Your task to perform on an android device: Search for hotels in Philadelphia Image 0: 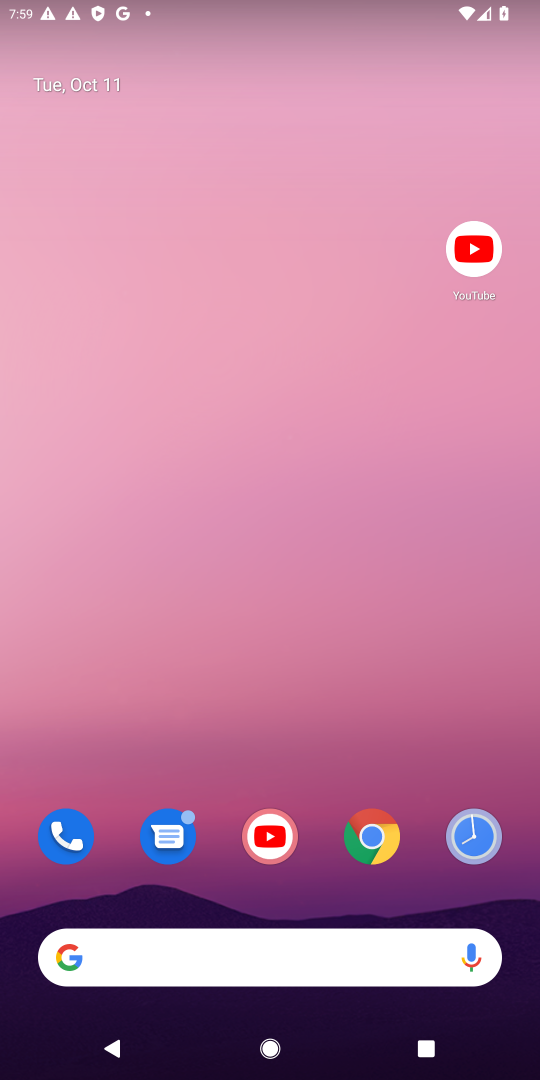
Step 0: click (369, 837)
Your task to perform on an android device: Search for hotels in Philadelphia Image 1: 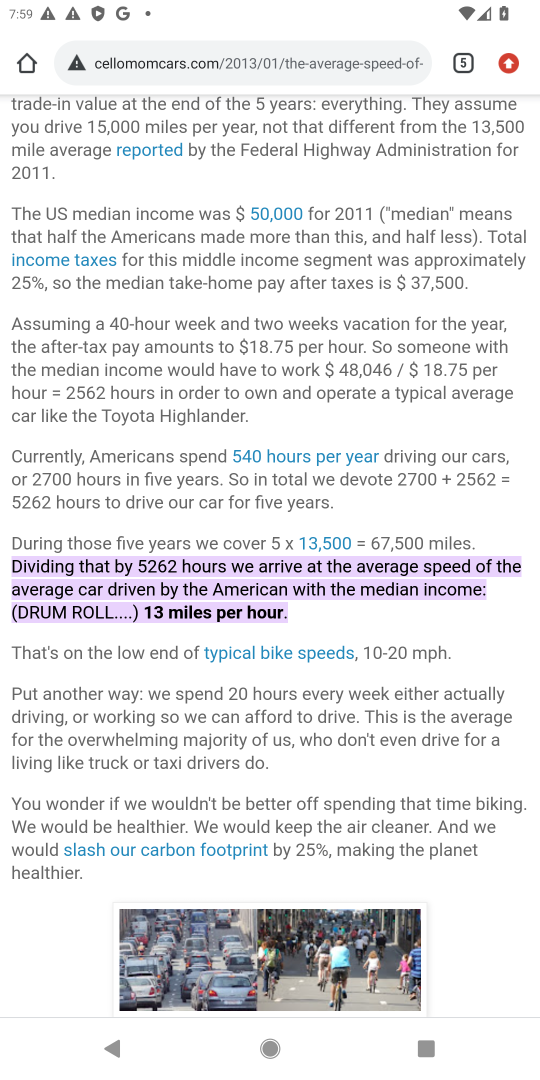
Step 1: click (270, 62)
Your task to perform on an android device: Search for hotels in Philadelphia Image 2: 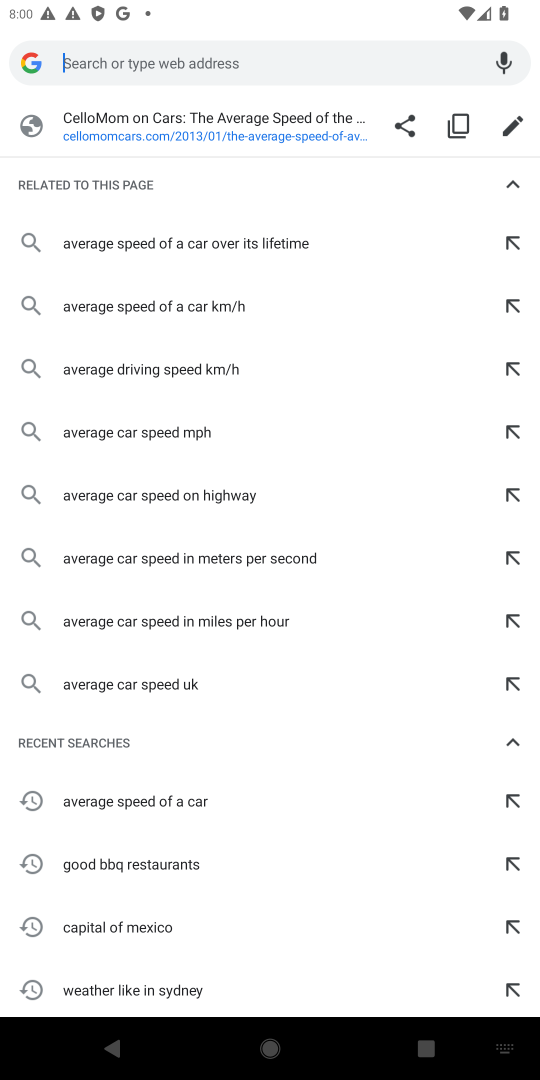
Step 2: type "hotels in Philadelphia"
Your task to perform on an android device: Search for hotels in Philadelphia Image 3: 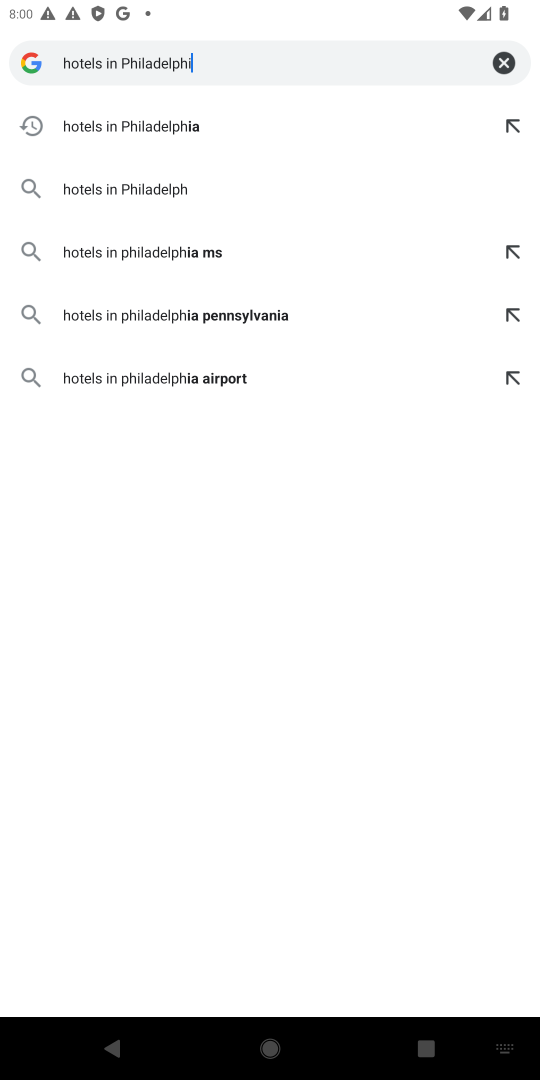
Step 3: press enter
Your task to perform on an android device: Search for hotels in Philadelphia Image 4: 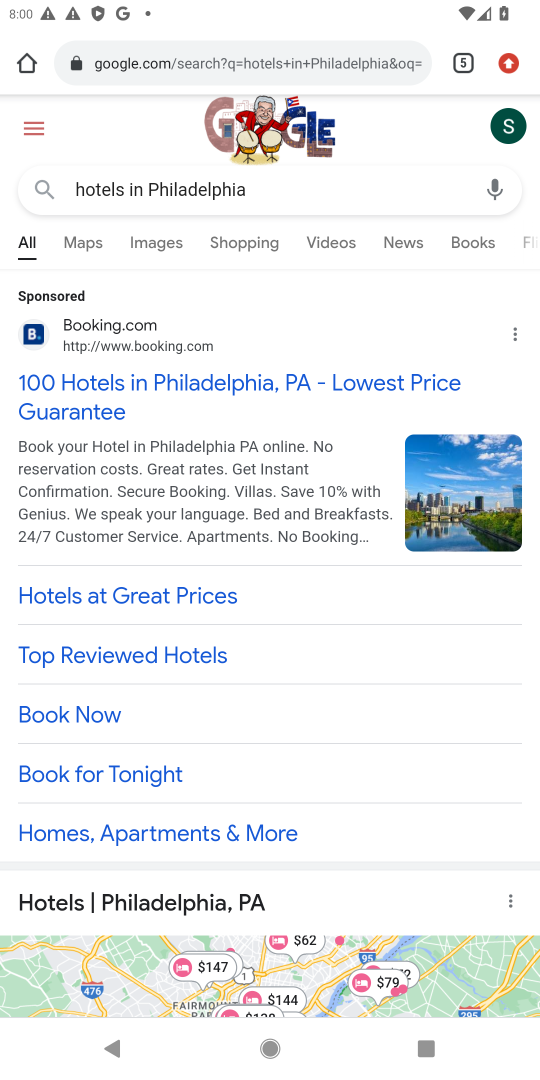
Step 4: drag from (224, 854) to (450, 273)
Your task to perform on an android device: Search for hotels in Philadelphia Image 5: 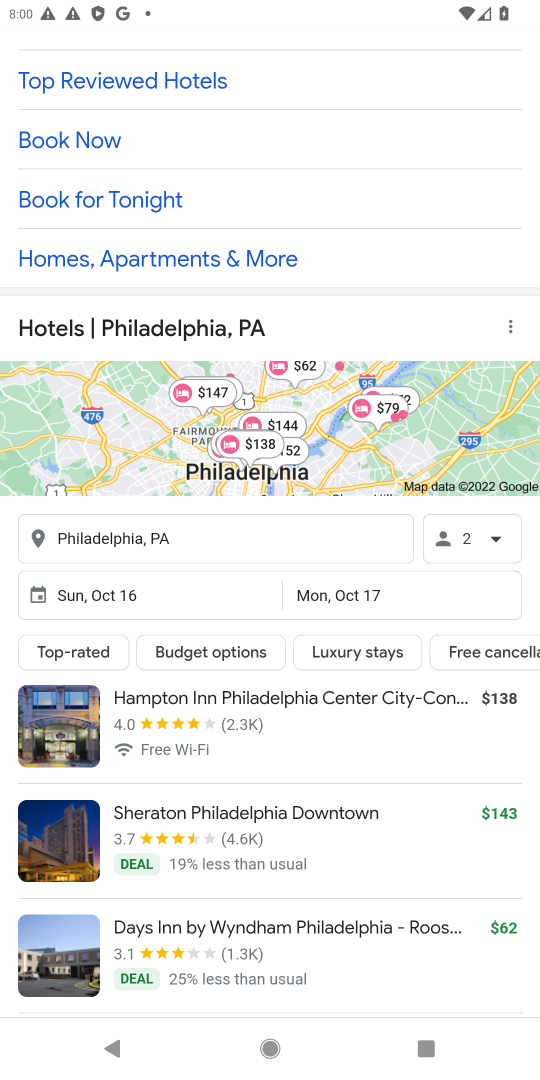
Step 5: drag from (300, 943) to (446, 390)
Your task to perform on an android device: Search for hotels in Philadelphia Image 6: 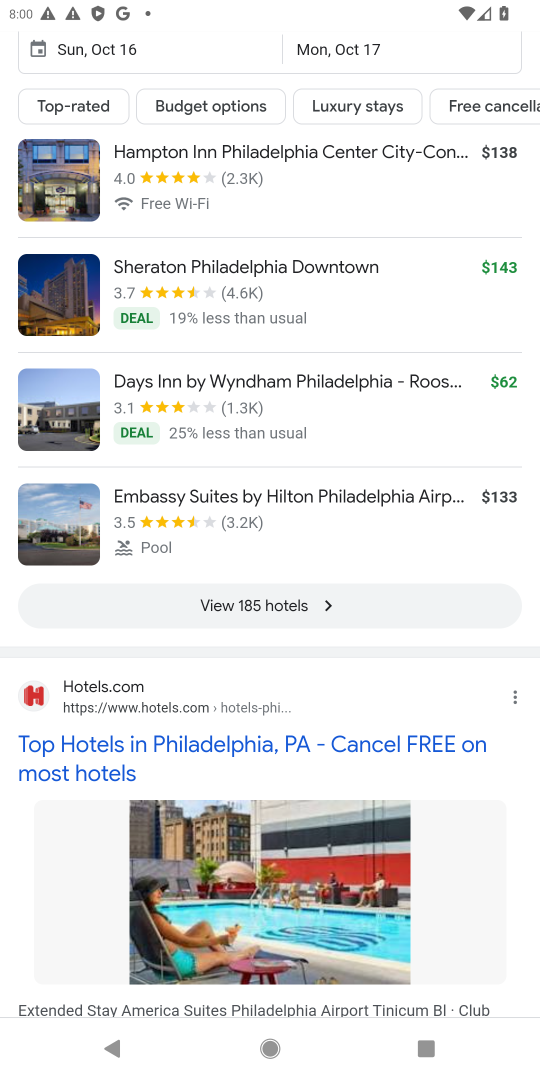
Step 6: click (291, 604)
Your task to perform on an android device: Search for hotels in Philadelphia Image 7: 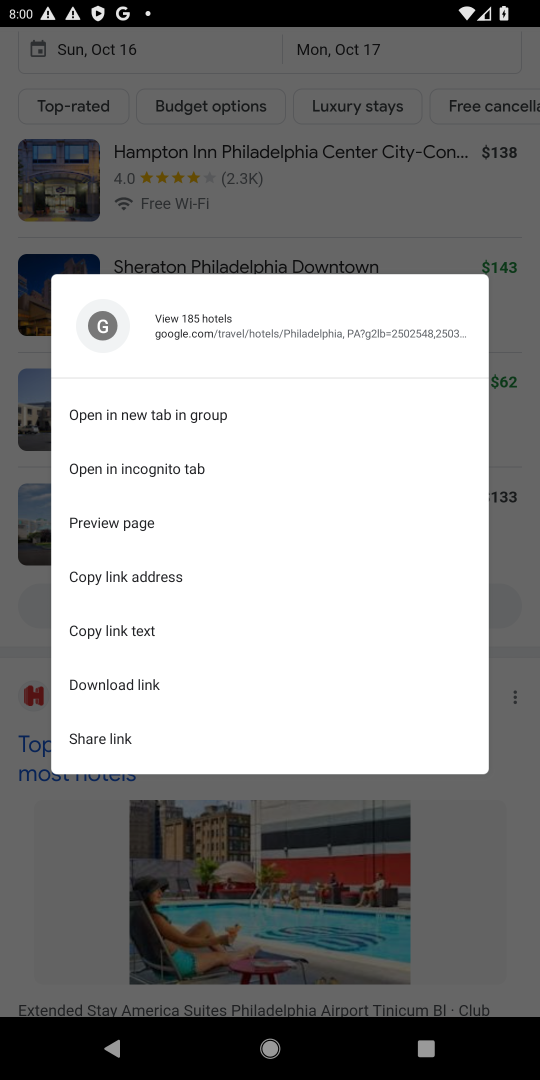
Step 7: click (505, 612)
Your task to perform on an android device: Search for hotels in Philadelphia Image 8: 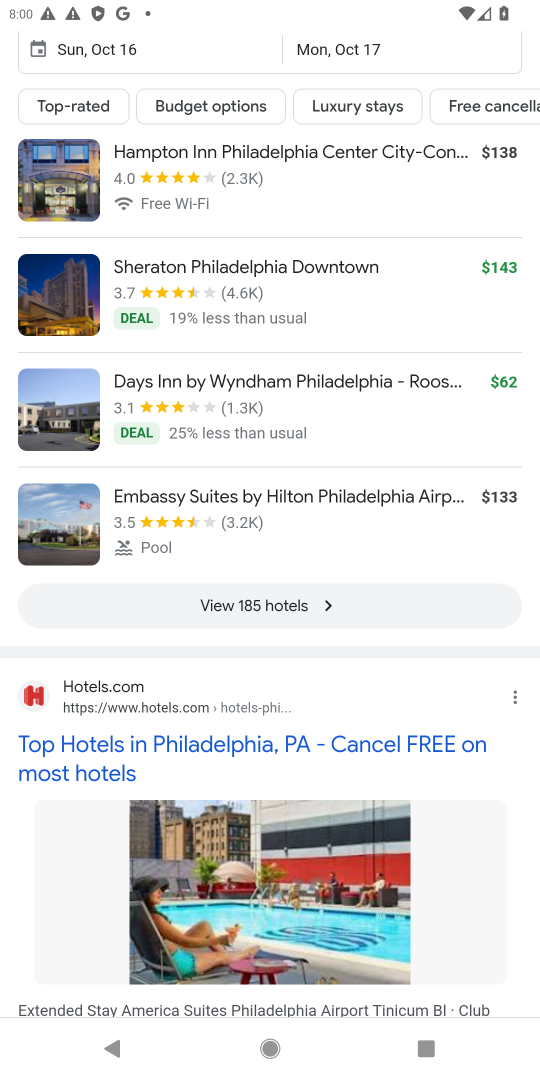
Step 8: click (320, 599)
Your task to perform on an android device: Search for hotels in Philadelphia Image 9: 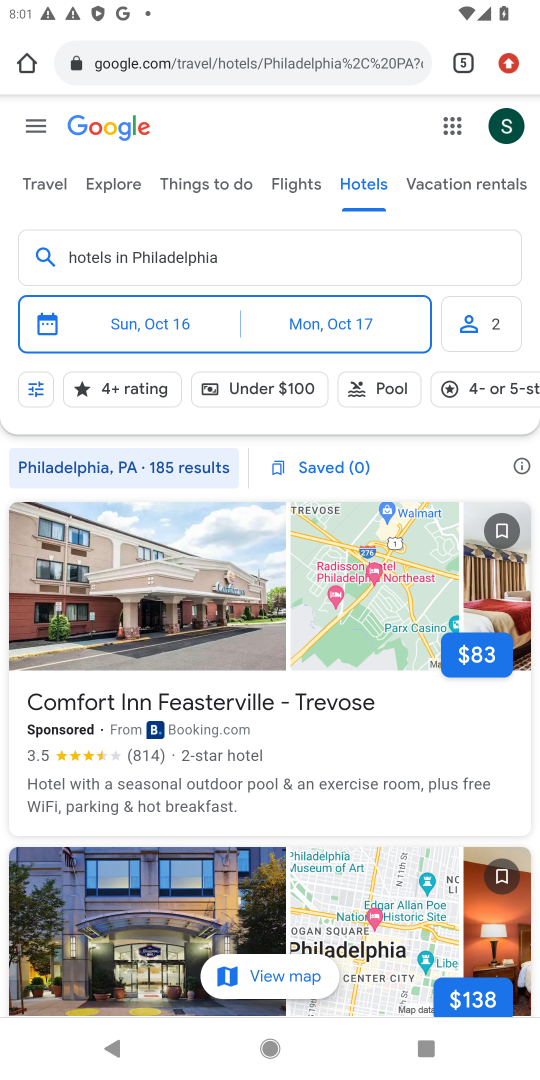
Step 9: task complete